Your task to perform on an android device: View the shopping cart on amazon. Add "dell alienware" to the cart on amazon, then select checkout. Image 0: 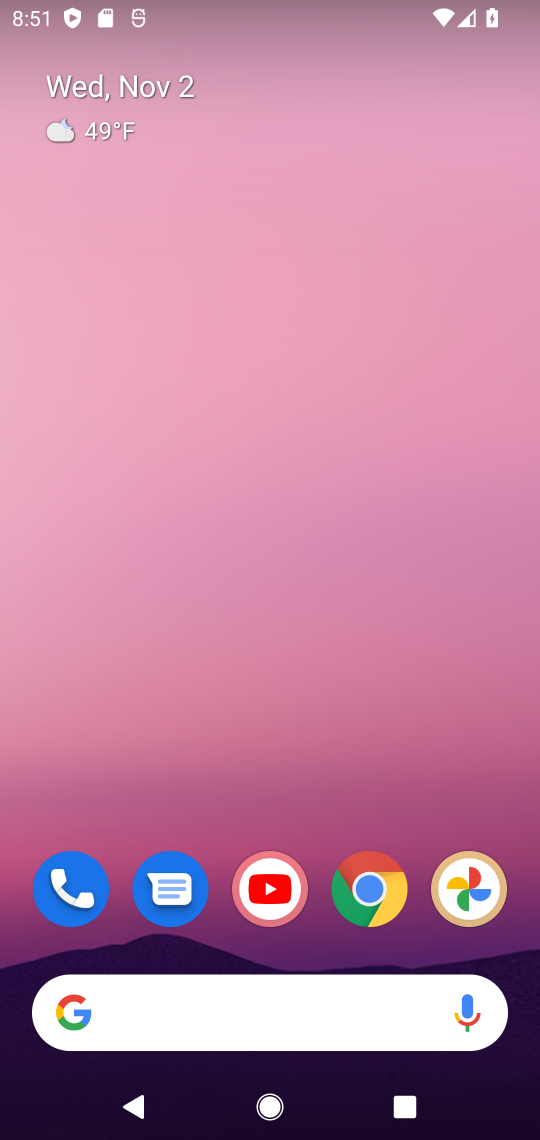
Step 0: drag from (302, 836) to (355, 26)
Your task to perform on an android device: View the shopping cart on amazon. Add "dell alienware" to the cart on amazon, then select checkout. Image 1: 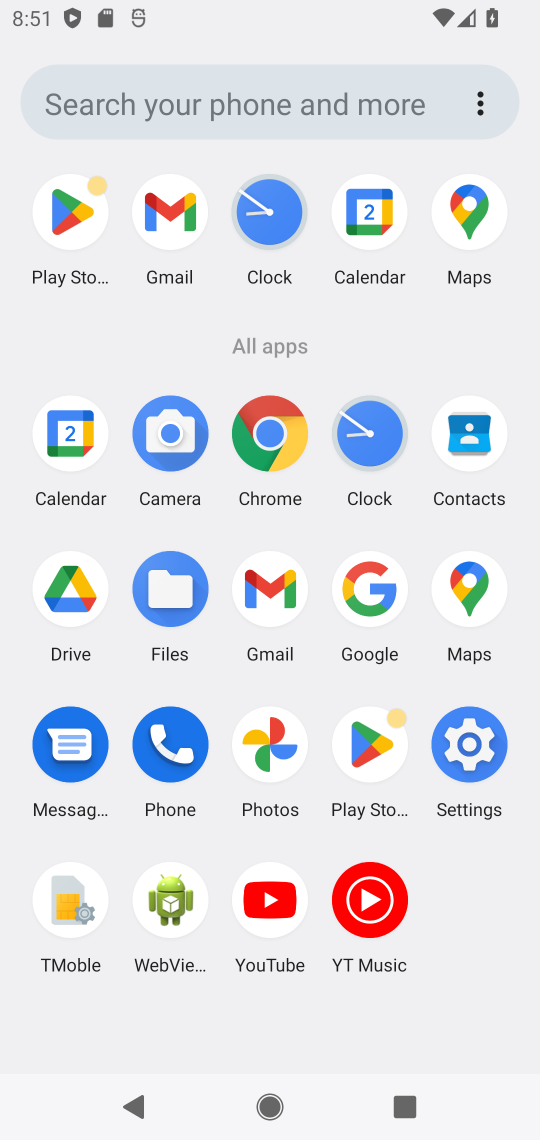
Step 1: click (262, 419)
Your task to perform on an android device: View the shopping cart on amazon. Add "dell alienware" to the cart on amazon, then select checkout. Image 2: 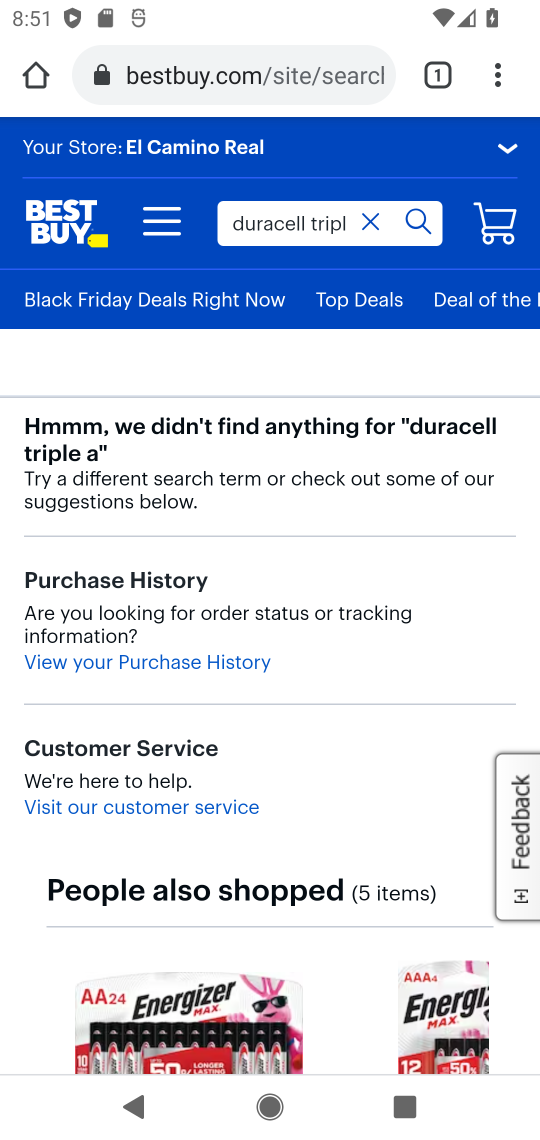
Step 2: click (218, 76)
Your task to perform on an android device: View the shopping cart on amazon. Add "dell alienware" to the cart on amazon, then select checkout. Image 3: 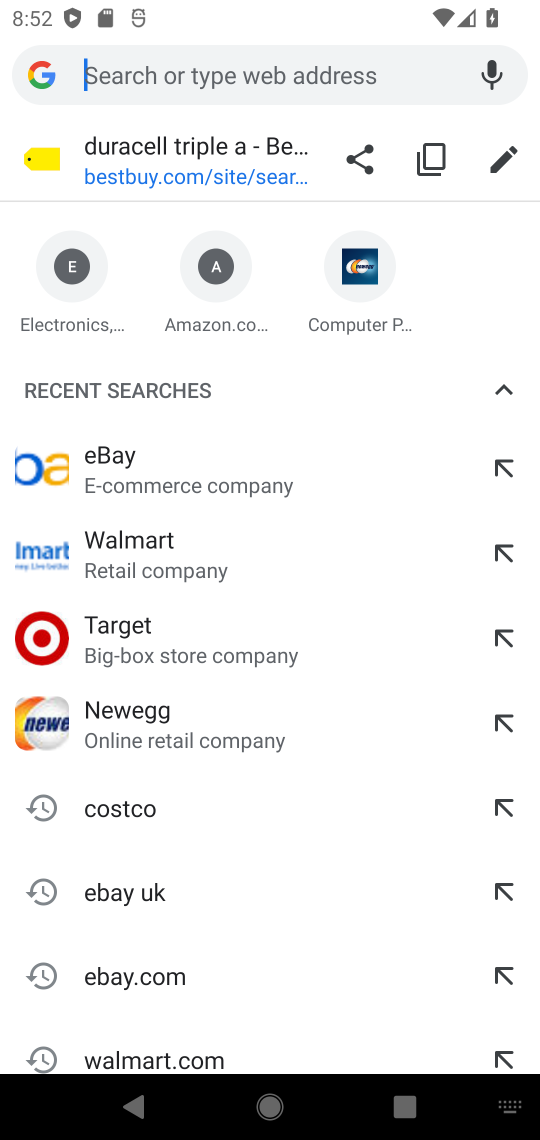
Step 3: type "amazon"
Your task to perform on an android device: View the shopping cart on amazon. Add "dell alienware" to the cart on amazon, then select checkout. Image 4: 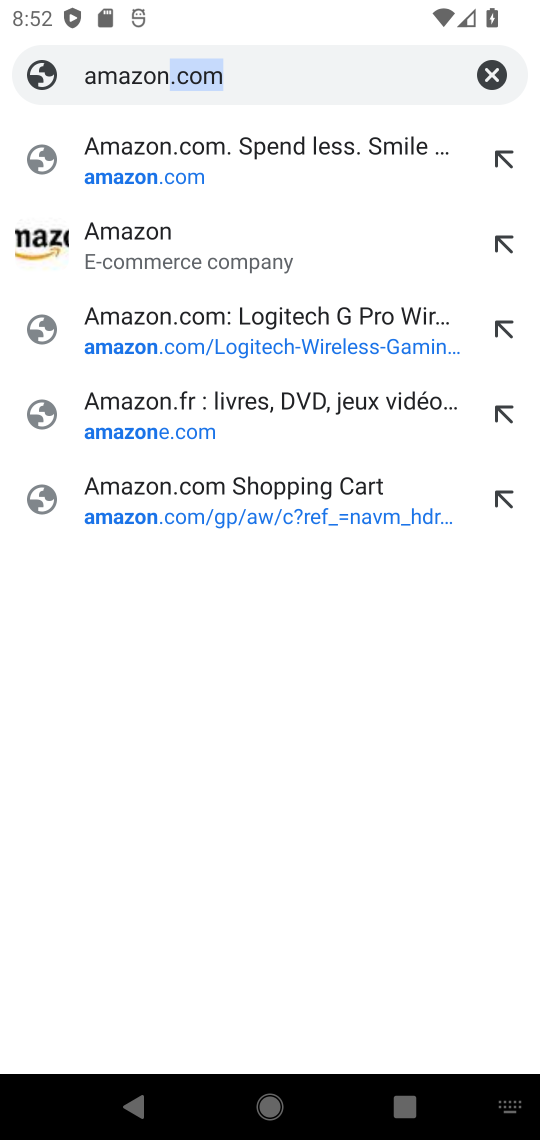
Step 4: click (145, 234)
Your task to perform on an android device: View the shopping cart on amazon. Add "dell alienware" to the cart on amazon, then select checkout. Image 5: 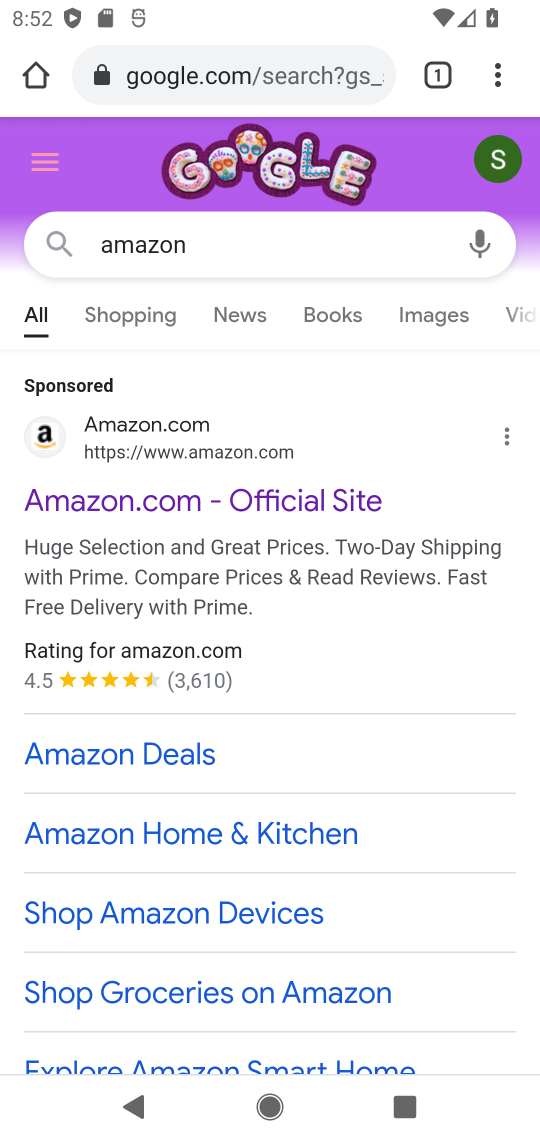
Step 5: click (151, 494)
Your task to perform on an android device: View the shopping cart on amazon. Add "dell alienware" to the cart on amazon, then select checkout. Image 6: 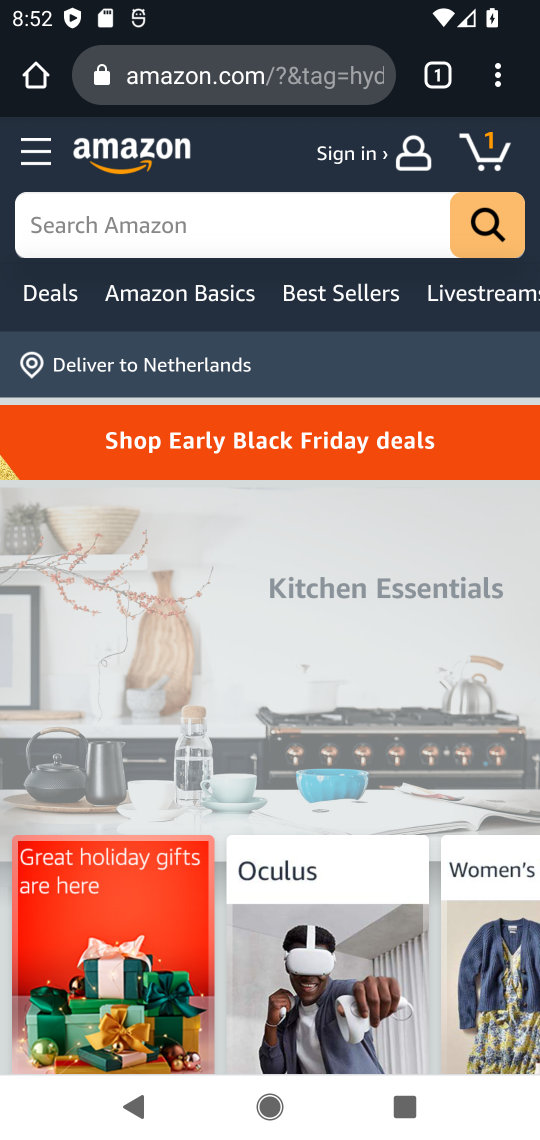
Step 6: click (160, 226)
Your task to perform on an android device: View the shopping cart on amazon. Add "dell alienware" to the cart on amazon, then select checkout. Image 7: 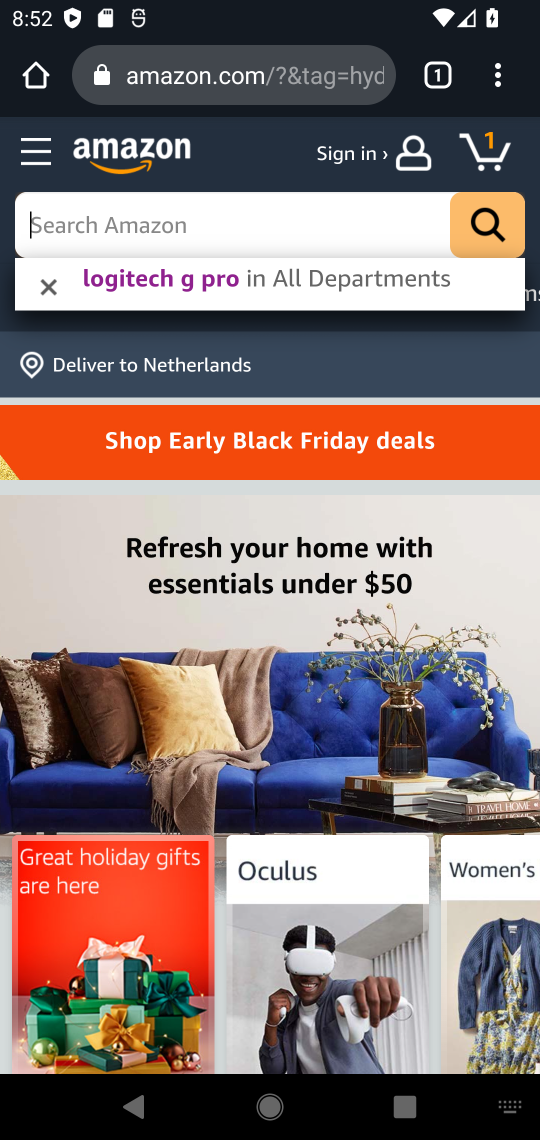
Step 7: click (138, 213)
Your task to perform on an android device: View the shopping cart on amazon. Add "dell alienware" to the cart on amazon, then select checkout. Image 8: 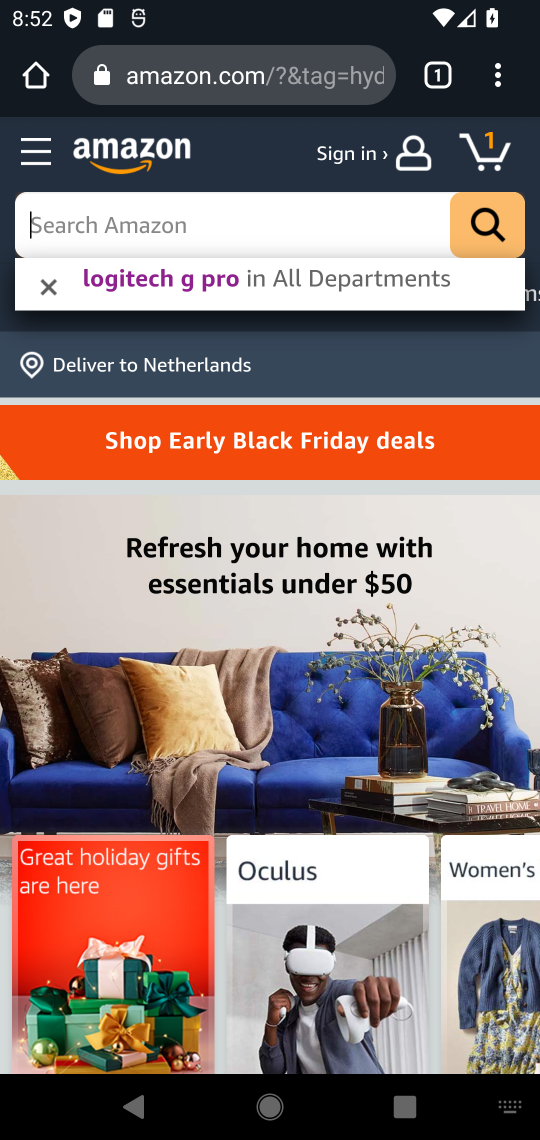
Step 8: type "dell alienware"
Your task to perform on an android device: View the shopping cart on amazon. Add "dell alienware" to the cart on amazon, then select checkout. Image 9: 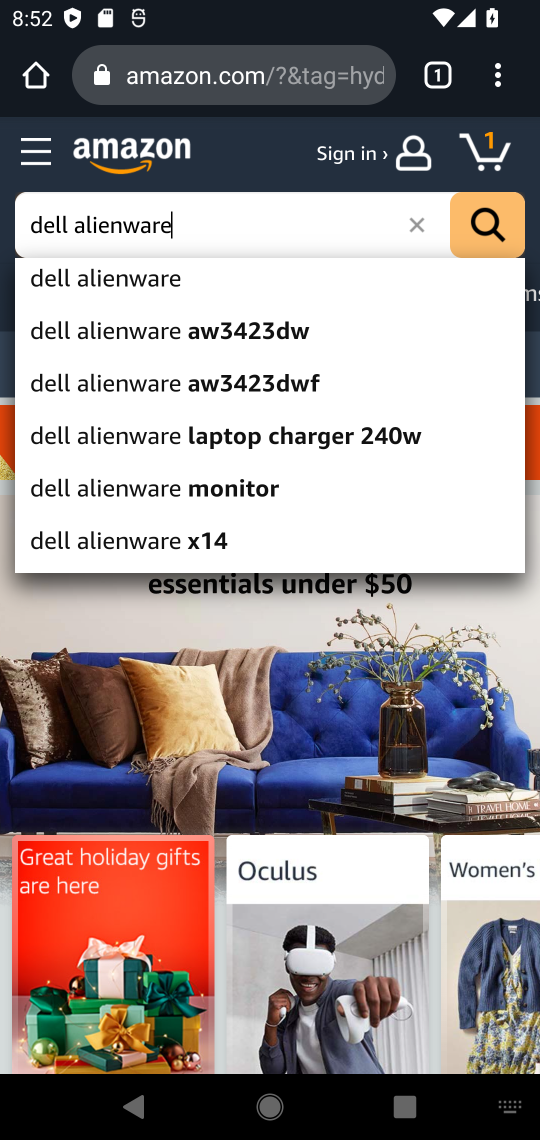
Step 9: click (187, 285)
Your task to perform on an android device: View the shopping cart on amazon. Add "dell alienware" to the cart on amazon, then select checkout. Image 10: 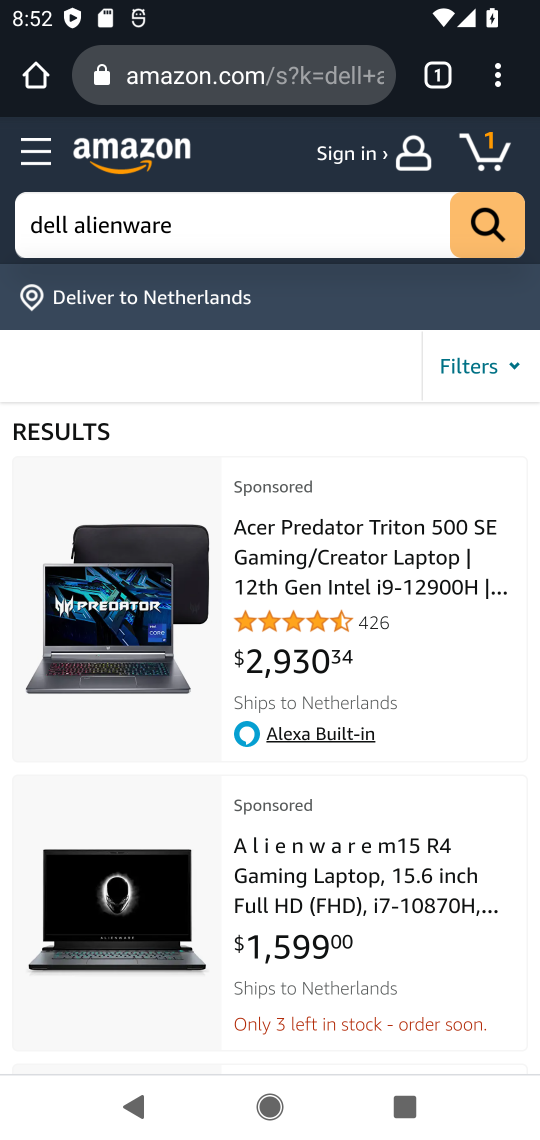
Step 10: drag from (279, 871) to (335, 482)
Your task to perform on an android device: View the shopping cart on amazon. Add "dell alienware" to the cart on amazon, then select checkout. Image 11: 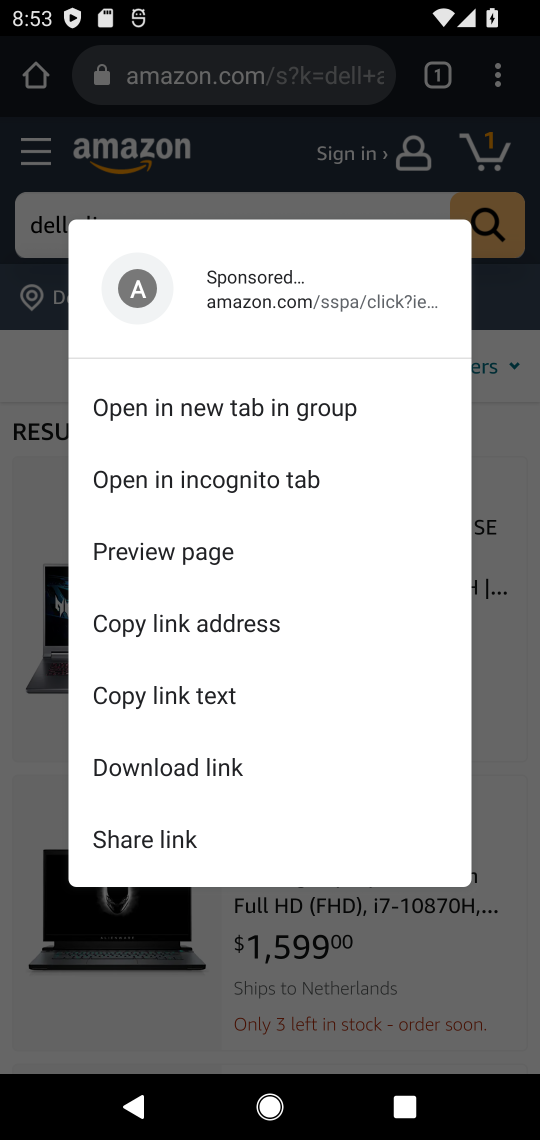
Step 11: click (485, 953)
Your task to perform on an android device: View the shopping cart on amazon. Add "dell alienware" to the cart on amazon, then select checkout. Image 12: 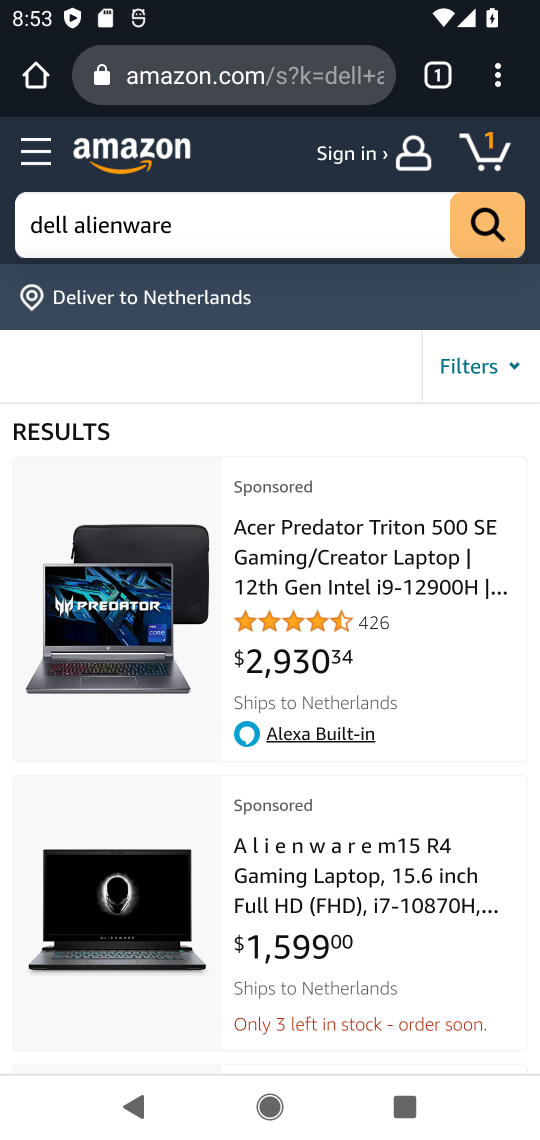
Step 12: drag from (267, 865) to (308, 230)
Your task to perform on an android device: View the shopping cart on amazon. Add "dell alienware" to the cart on amazon, then select checkout. Image 13: 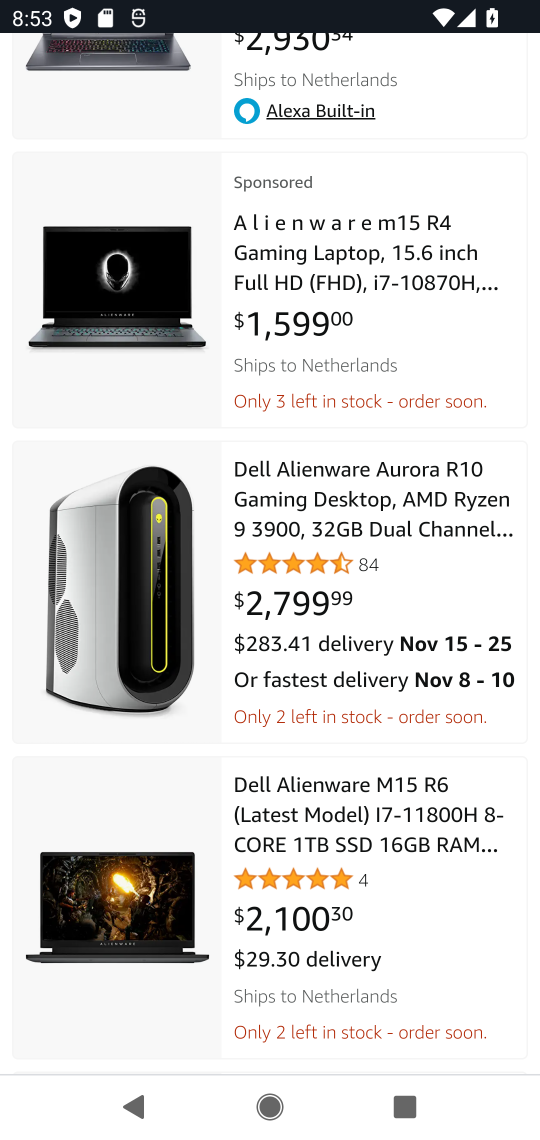
Step 13: click (301, 805)
Your task to perform on an android device: View the shopping cart on amazon. Add "dell alienware" to the cart on amazon, then select checkout. Image 14: 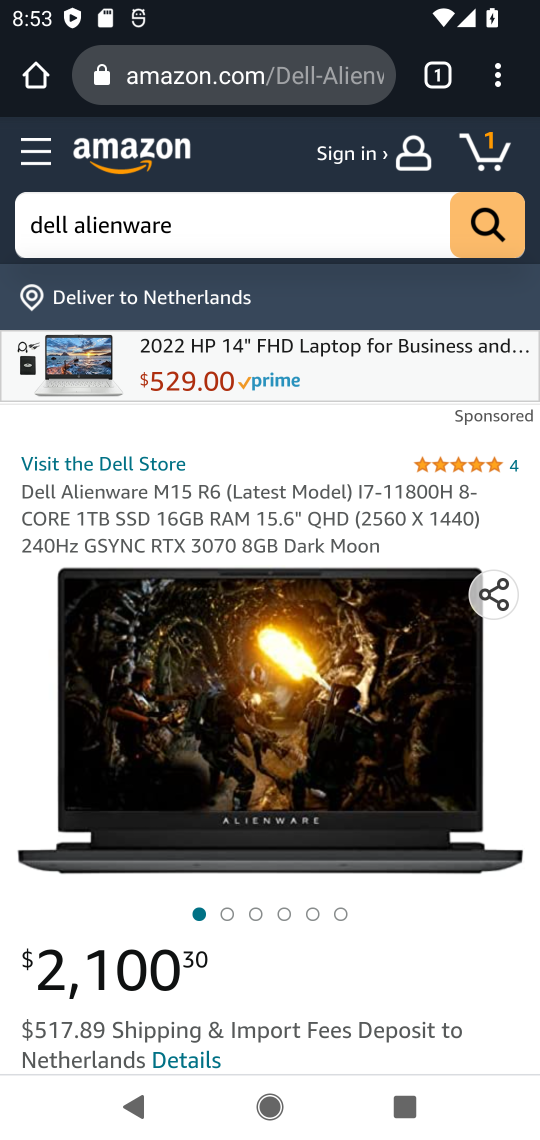
Step 14: drag from (390, 242) to (265, 0)
Your task to perform on an android device: View the shopping cart on amazon. Add "dell alienware" to the cart on amazon, then select checkout. Image 15: 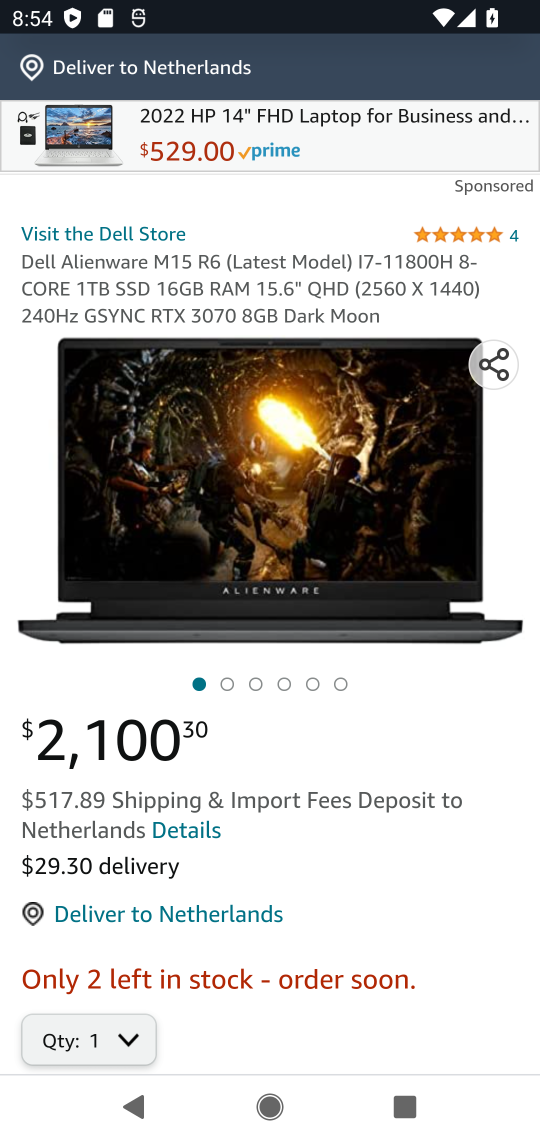
Step 15: drag from (300, 796) to (373, 333)
Your task to perform on an android device: View the shopping cart on amazon. Add "dell alienware" to the cart on amazon, then select checkout. Image 16: 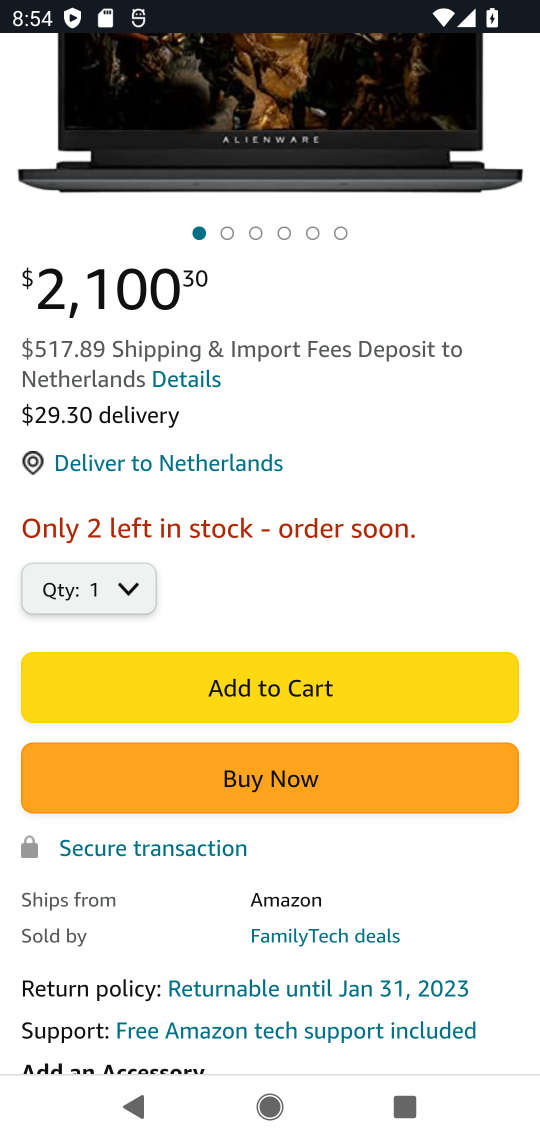
Step 16: click (287, 682)
Your task to perform on an android device: View the shopping cart on amazon. Add "dell alienware" to the cart on amazon, then select checkout. Image 17: 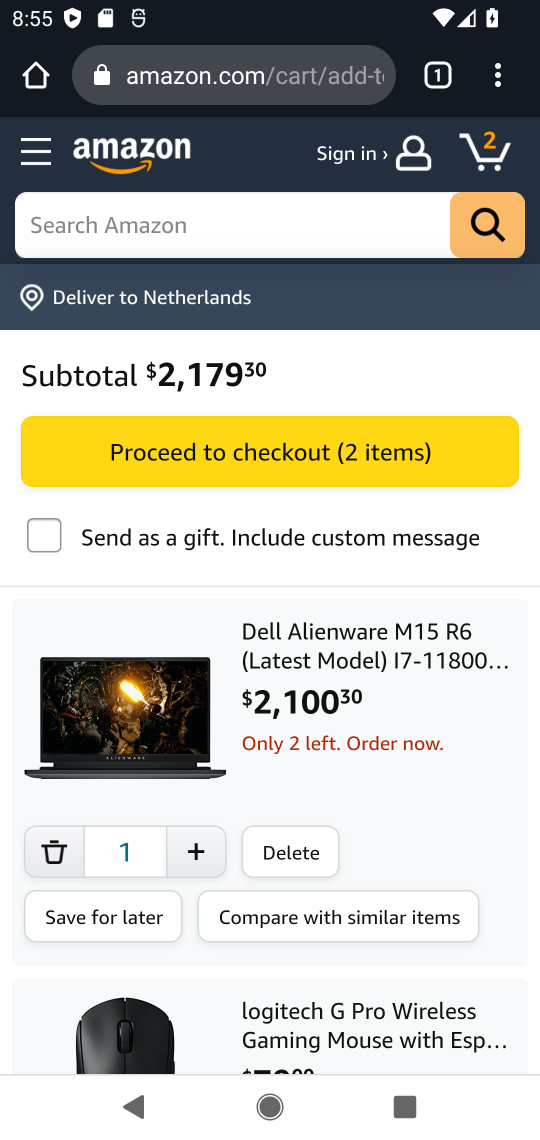
Step 17: click (305, 463)
Your task to perform on an android device: View the shopping cart on amazon. Add "dell alienware" to the cart on amazon, then select checkout. Image 18: 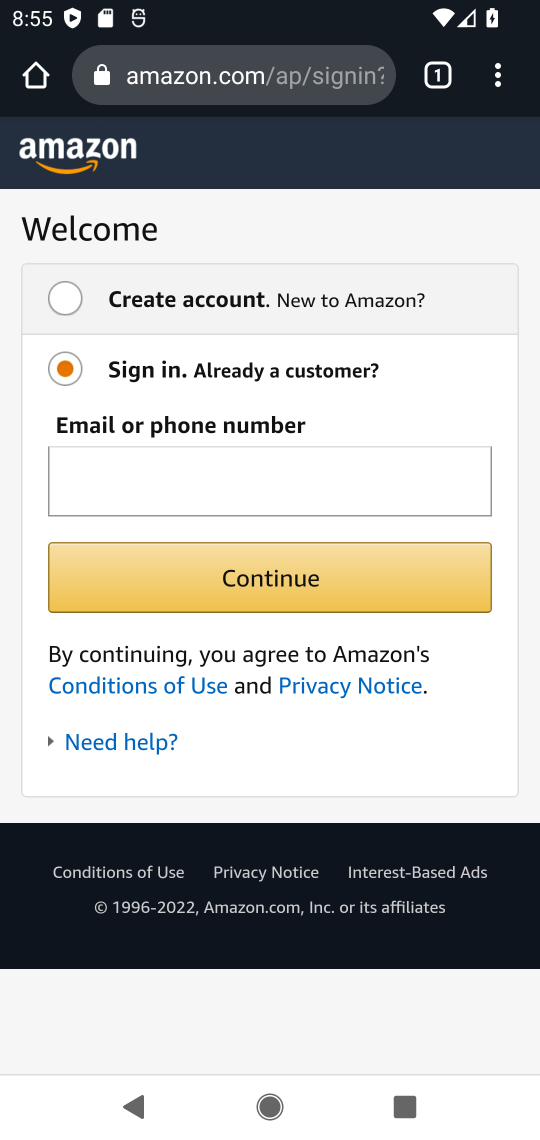
Step 18: task complete